Your task to perform on an android device: Search for pizza restaurants on Maps Image 0: 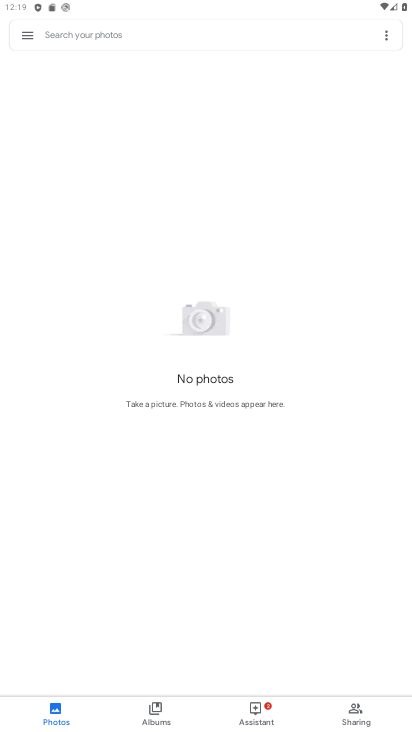
Step 0: press home button
Your task to perform on an android device: Search for pizza restaurants on Maps Image 1: 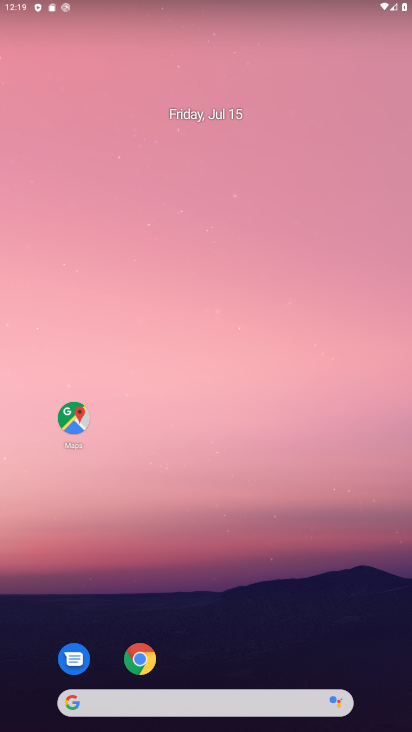
Step 1: click (76, 419)
Your task to perform on an android device: Search for pizza restaurants on Maps Image 2: 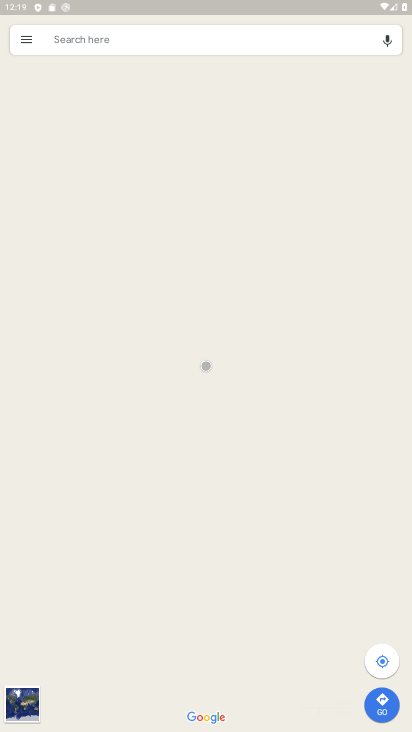
Step 2: click (163, 42)
Your task to perform on an android device: Search for pizza restaurants on Maps Image 3: 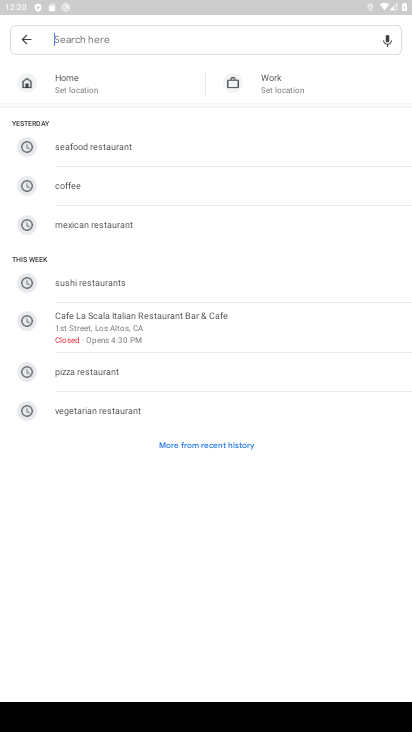
Step 3: type "pizza restaurents"
Your task to perform on an android device: Search for pizza restaurants on Maps Image 4: 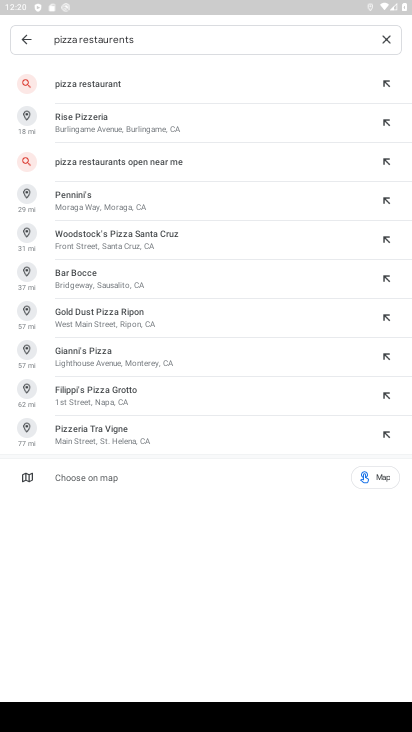
Step 4: click (93, 84)
Your task to perform on an android device: Search for pizza restaurants on Maps Image 5: 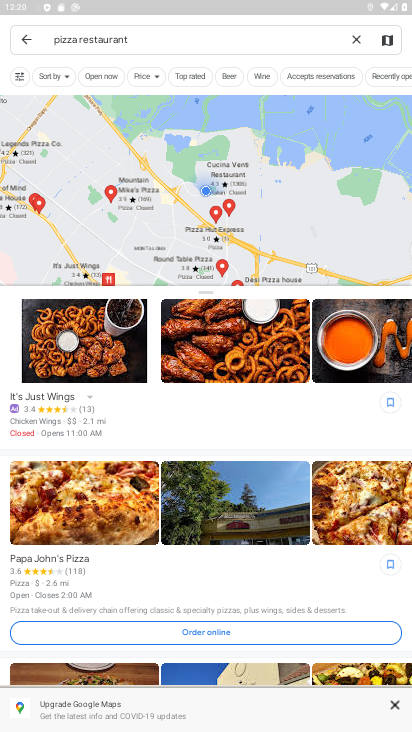
Step 5: task complete